Your task to perform on an android device: Open sound settings Image 0: 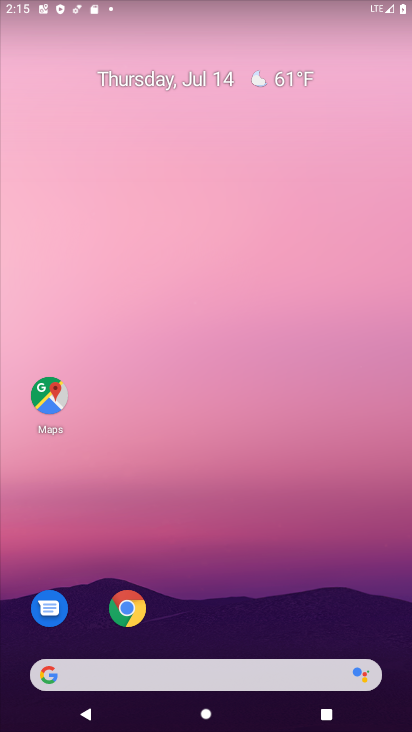
Step 0: drag from (161, 661) to (247, 126)
Your task to perform on an android device: Open sound settings Image 1: 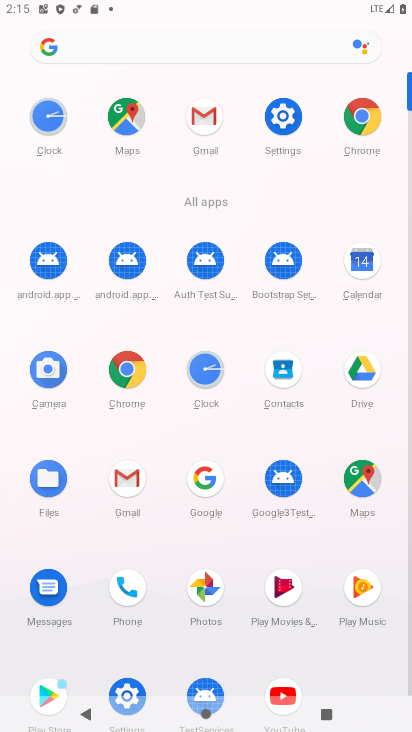
Step 1: click (280, 106)
Your task to perform on an android device: Open sound settings Image 2: 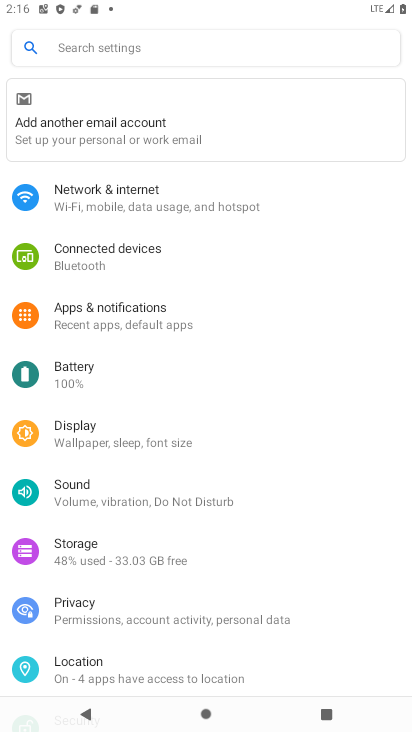
Step 2: click (106, 498)
Your task to perform on an android device: Open sound settings Image 3: 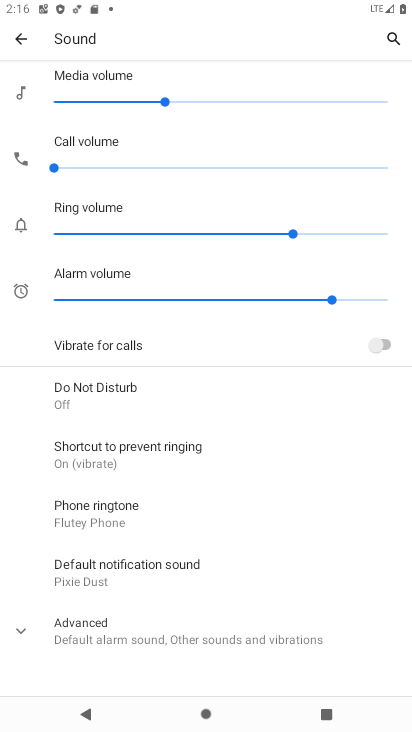
Step 3: click (88, 628)
Your task to perform on an android device: Open sound settings Image 4: 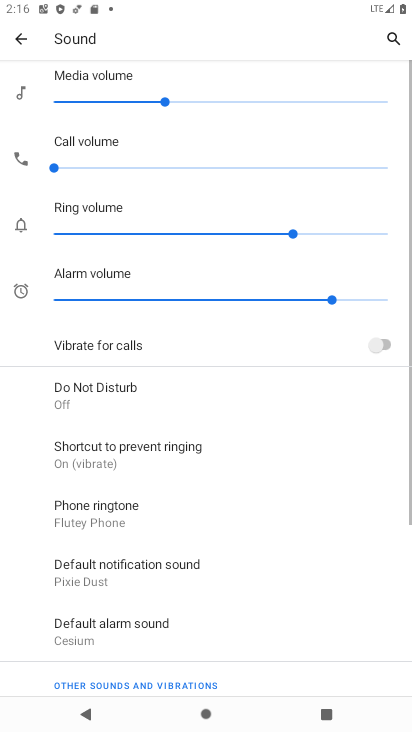
Step 4: task complete